Your task to perform on an android device: Open sound settings Image 0: 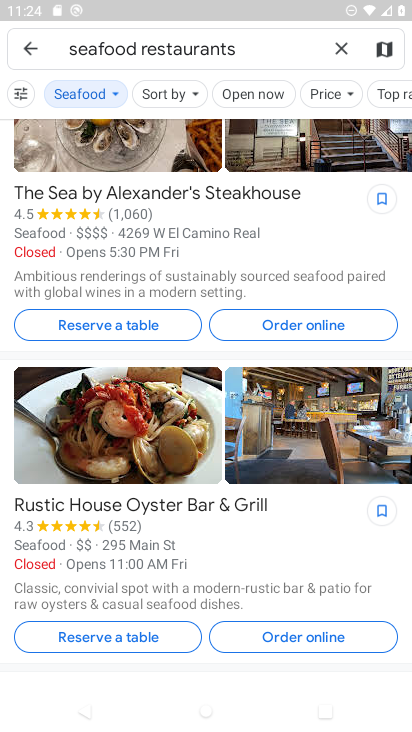
Step 0: press home button
Your task to perform on an android device: Open sound settings Image 1: 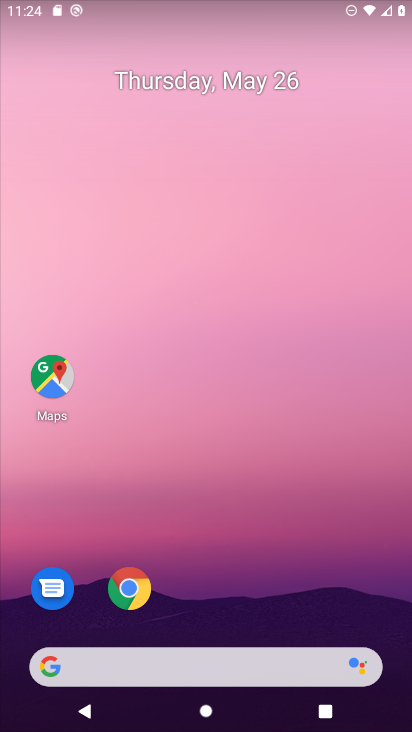
Step 1: drag from (370, 618) to (329, 52)
Your task to perform on an android device: Open sound settings Image 2: 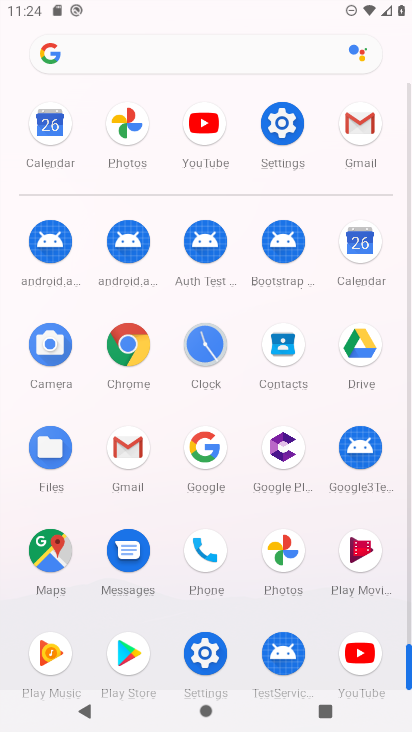
Step 2: click (204, 653)
Your task to perform on an android device: Open sound settings Image 3: 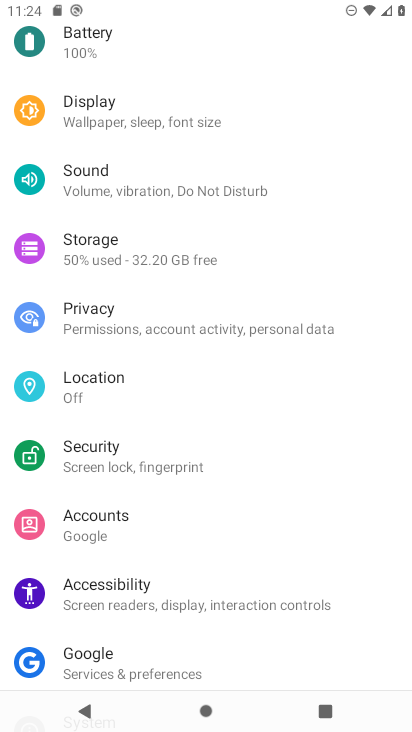
Step 3: click (92, 177)
Your task to perform on an android device: Open sound settings Image 4: 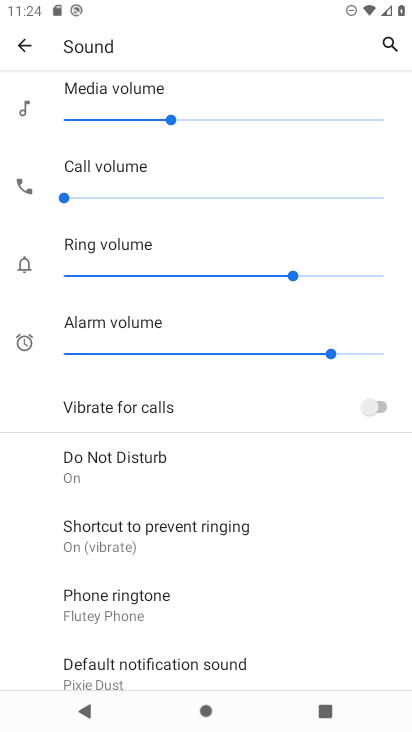
Step 4: drag from (306, 645) to (278, 220)
Your task to perform on an android device: Open sound settings Image 5: 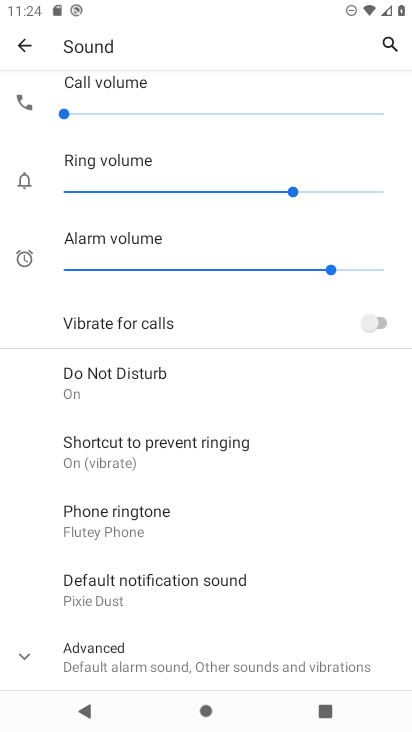
Step 5: click (22, 654)
Your task to perform on an android device: Open sound settings Image 6: 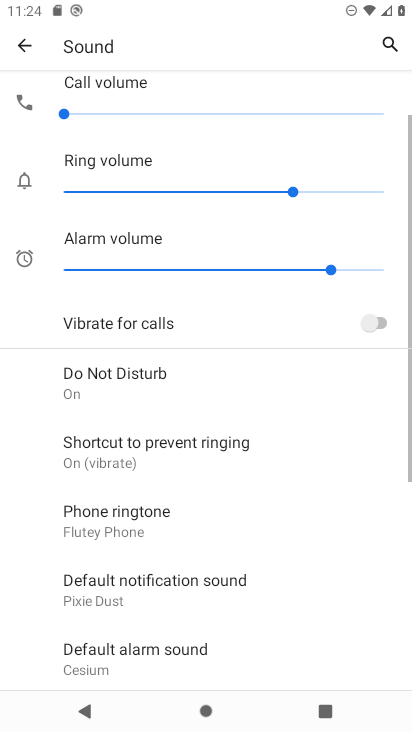
Step 6: task complete